Your task to perform on an android device: turn off location Image 0: 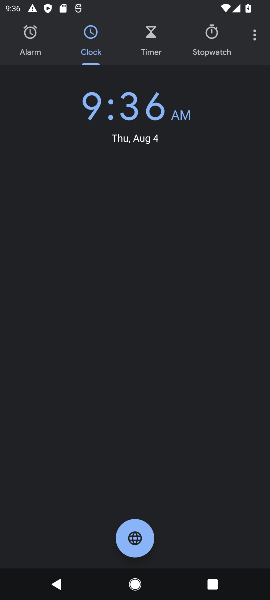
Step 0: press home button
Your task to perform on an android device: turn off location Image 1: 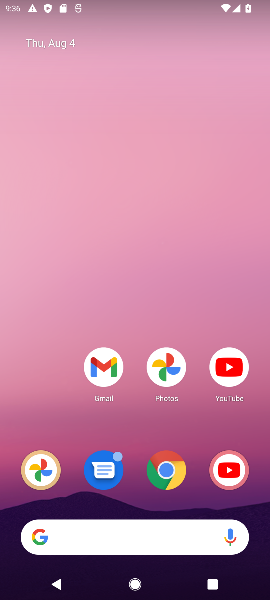
Step 1: drag from (128, 416) to (113, 1)
Your task to perform on an android device: turn off location Image 2: 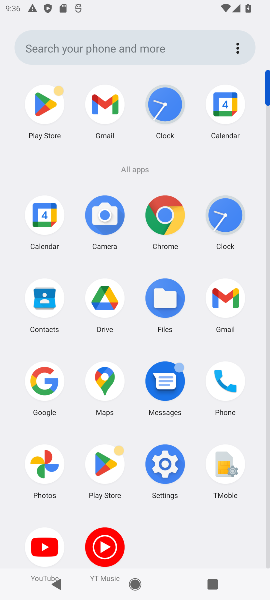
Step 2: click (159, 465)
Your task to perform on an android device: turn off location Image 3: 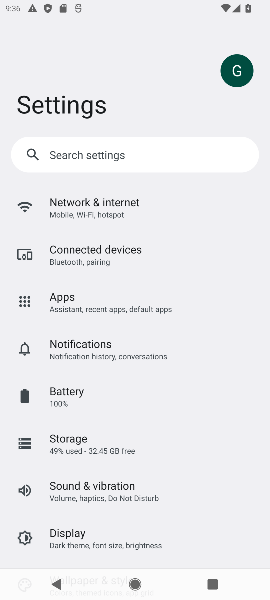
Step 3: drag from (102, 533) to (95, 157)
Your task to perform on an android device: turn off location Image 4: 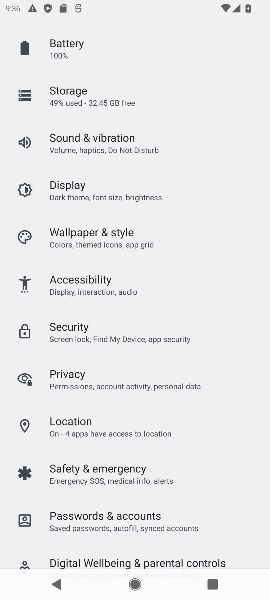
Step 4: click (105, 424)
Your task to perform on an android device: turn off location Image 5: 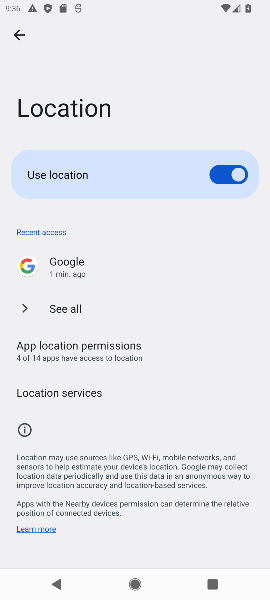
Step 5: click (221, 166)
Your task to perform on an android device: turn off location Image 6: 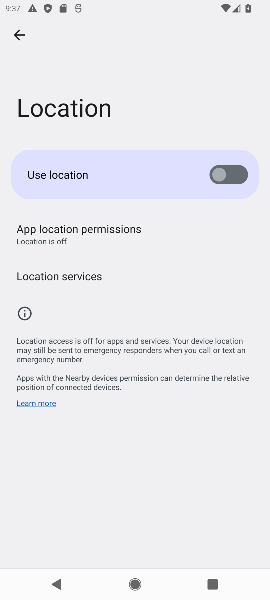
Step 6: task complete